Your task to perform on an android device: Toggle the flashlight Image 0: 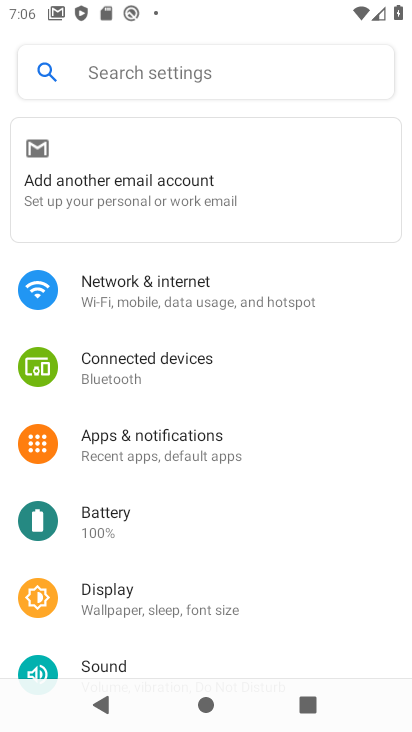
Step 0: click (210, 75)
Your task to perform on an android device: Toggle the flashlight Image 1: 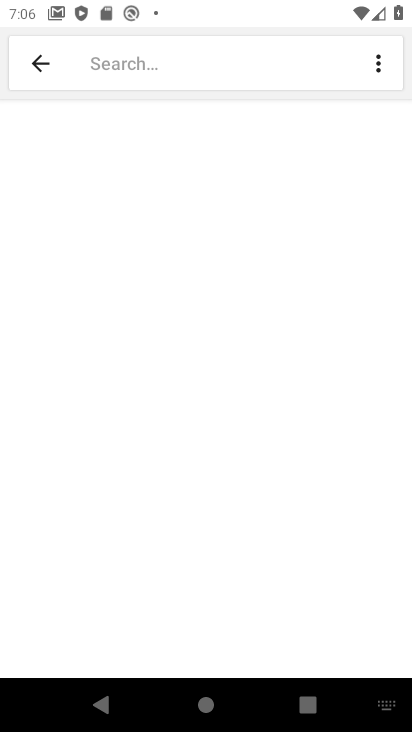
Step 1: click (389, 718)
Your task to perform on an android device: Toggle the flashlight Image 2: 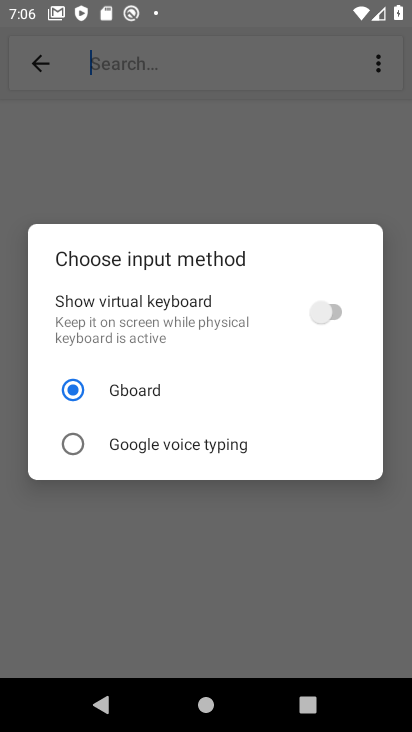
Step 2: click (325, 317)
Your task to perform on an android device: Toggle the flashlight Image 3: 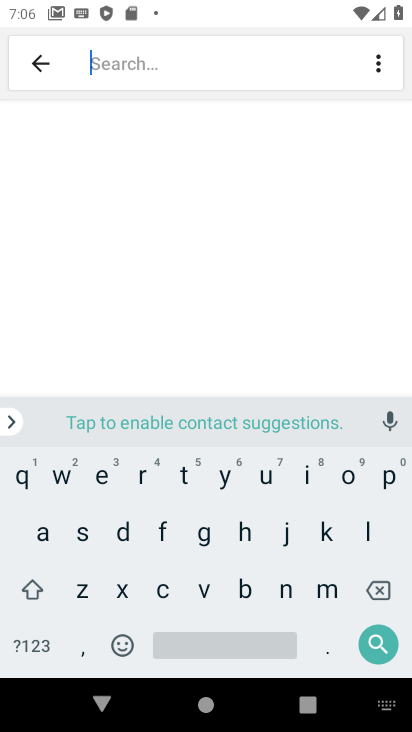
Step 3: click (156, 539)
Your task to perform on an android device: Toggle the flashlight Image 4: 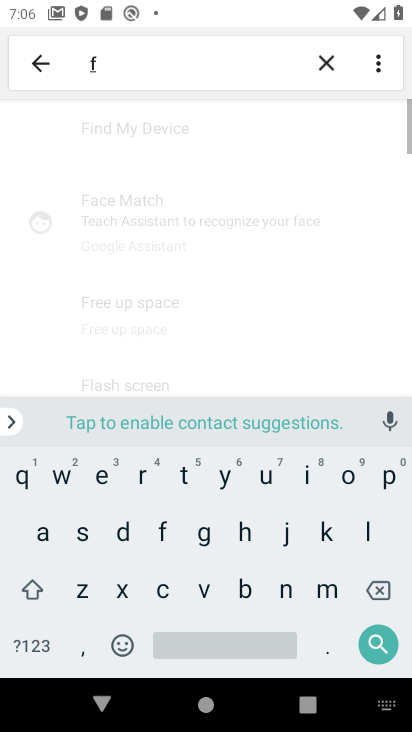
Step 4: click (364, 528)
Your task to perform on an android device: Toggle the flashlight Image 5: 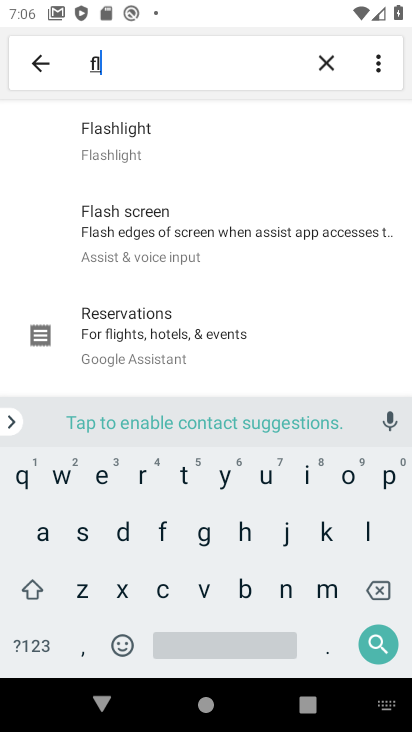
Step 5: click (128, 135)
Your task to perform on an android device: Toggle the flashlight Image 6: 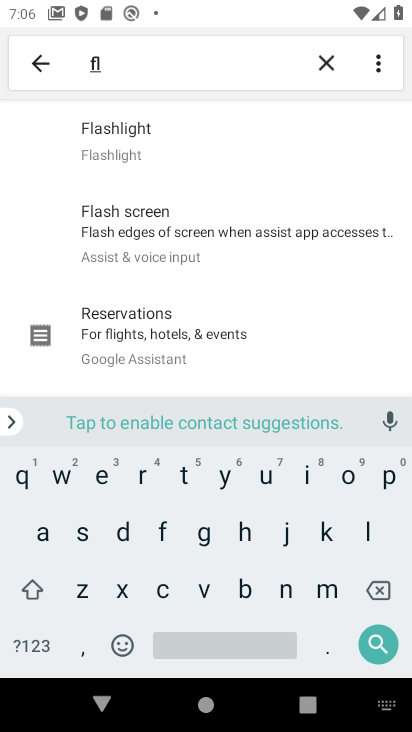
Step 6: click (128, 135)
Your task to perform on an android device: Toggle the flashlight Image 7: 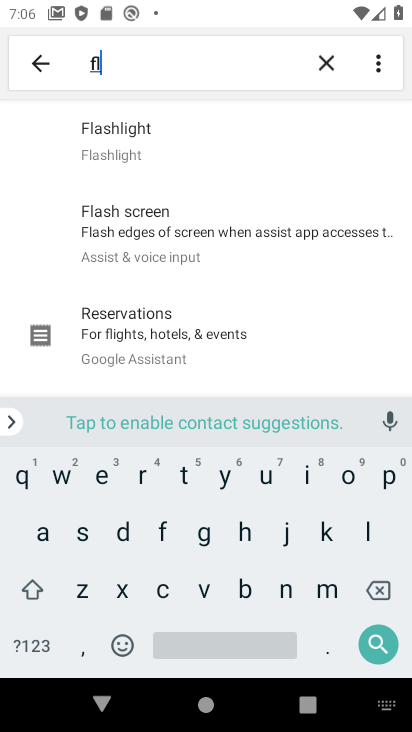
Step 7: task complete